Your task to perform on an android device: change alarm snooze length Image 0: 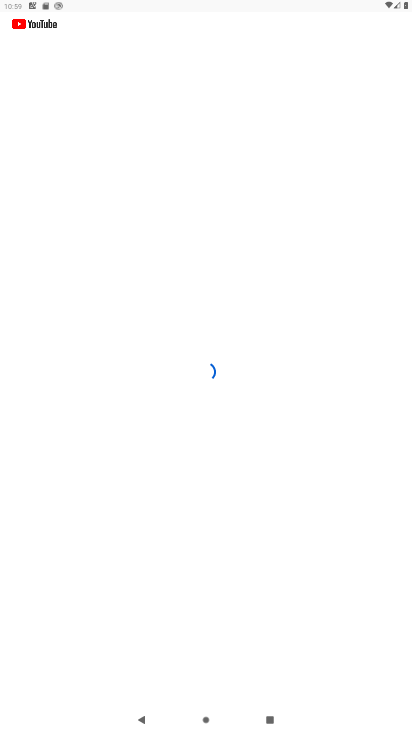
Step 0: drag from (294, 662) to (346, 224)
Your task to perform on an android device: change alarm snooze length Image 1: 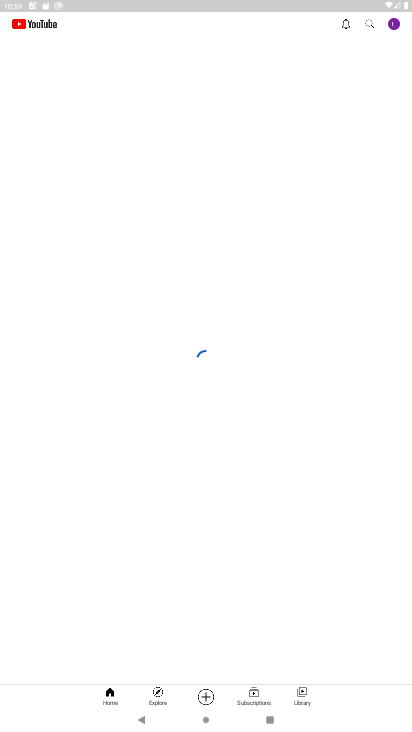
Step 1: press home button
Your task to perform on an android device: change alarm snooze length Image 2: 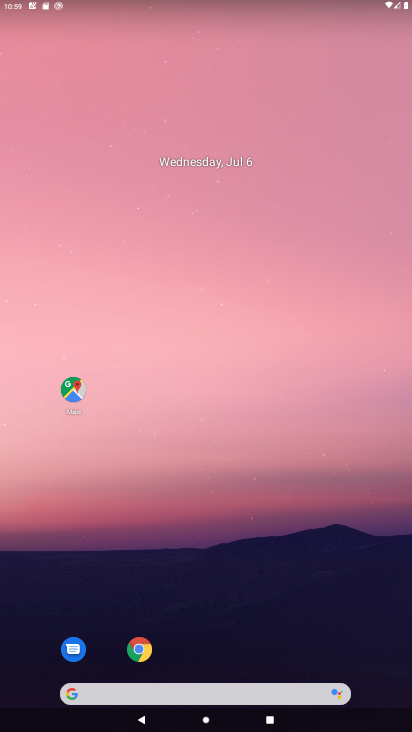
Step 2: drag from (287, 658) to (371, 82)
Your task to perform on an android device: change alarm snooze length Image 3: 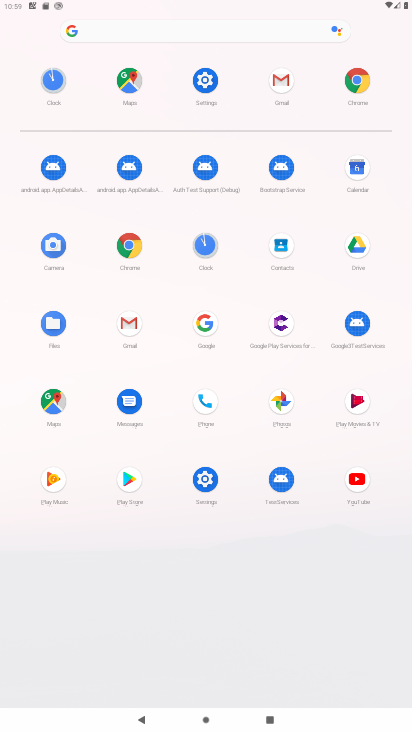
Step 3: click (212, 245)
Your task to perform on an android device: change alarm snooze length Image 4: 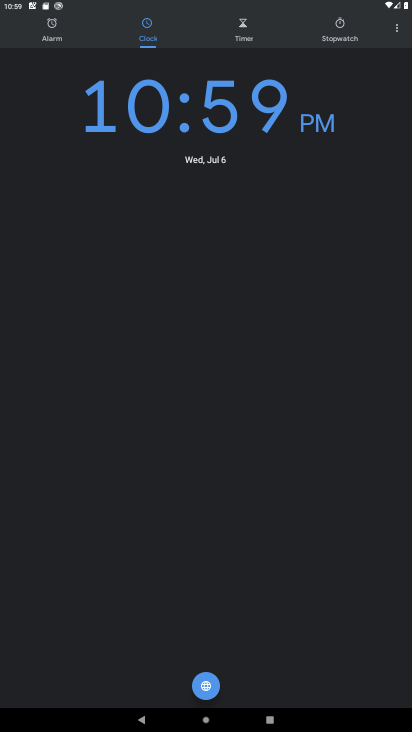
Step 4: click (397, 35)
Your task to perform on an android device: change alarm snooze length Image 5: 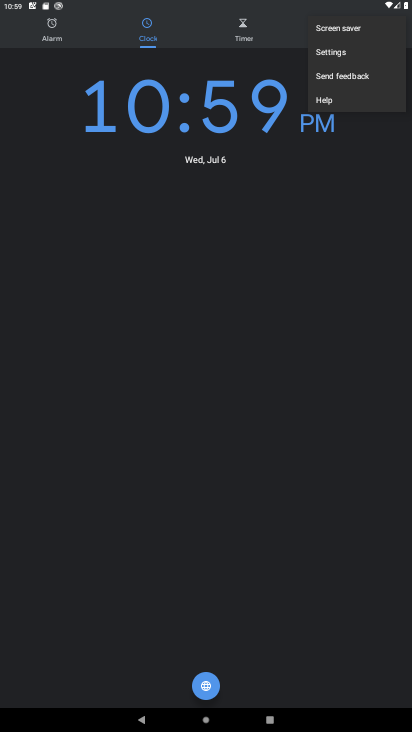
Step 5: click (344, 60)
Your task to perform on an android device: change alarm snooze length Image 6: 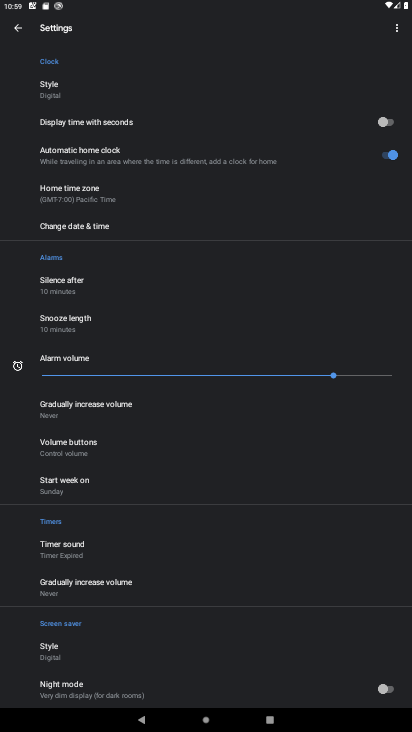
Step 6: click (50, 318)
Your task to perform on an android device: change alarm snooze length Image 7: 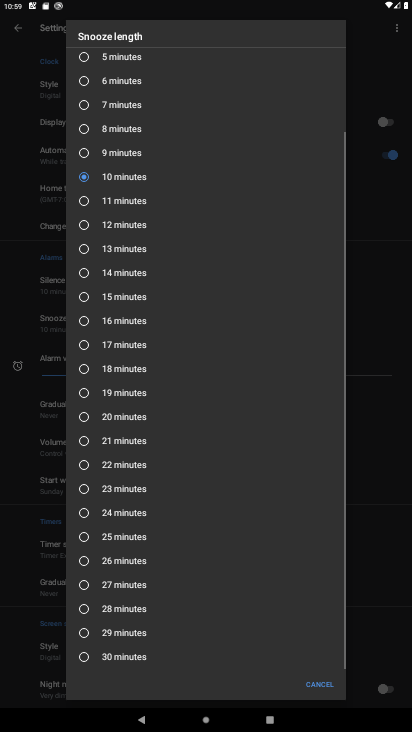
Step 7: click (87, 201)
Your task to perform on an android device: change alarm snooze length Image 8: 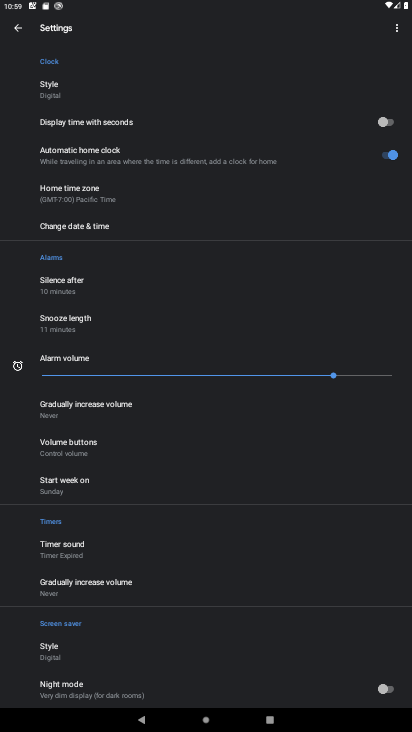
Step 8: task complete